Your task to perform on an android device: Open notification settings Image 0: 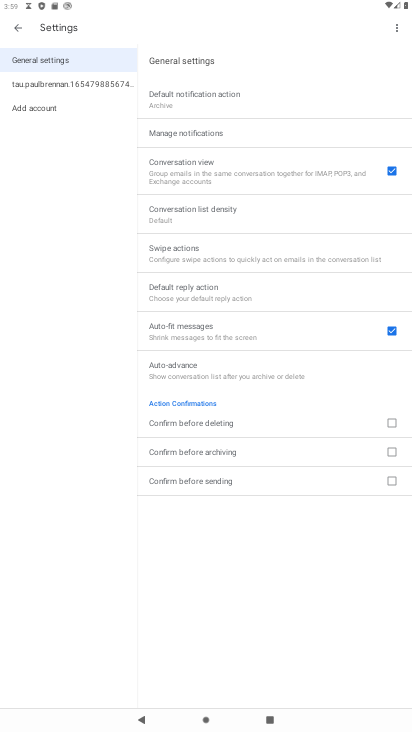
Step 0: press home button
Your task to perform on an android device: Open notification settings Image 1: 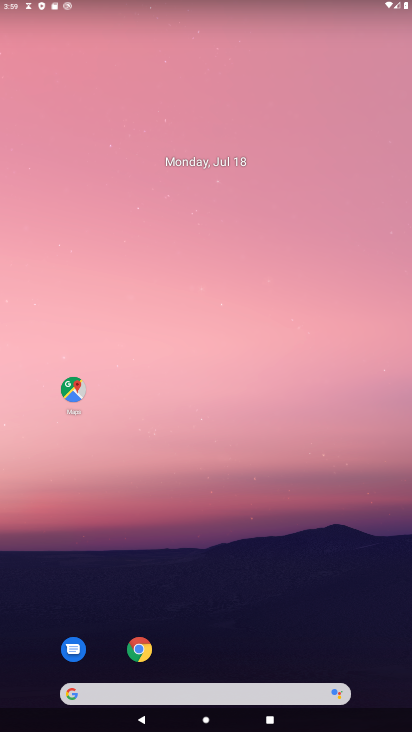
Step 1: drag from (310, 593) to (311, 44)
Your task to perform on an android device: Open notification settings Image 2: 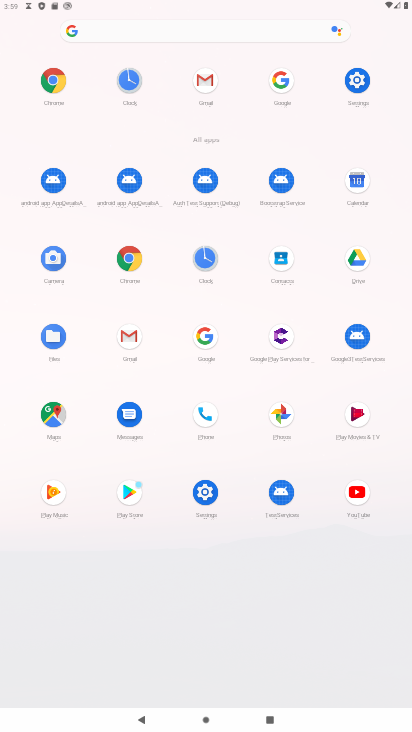
Step 2: click (353, 79)
Your task to perform on an android device: Open notification settings Image 3: 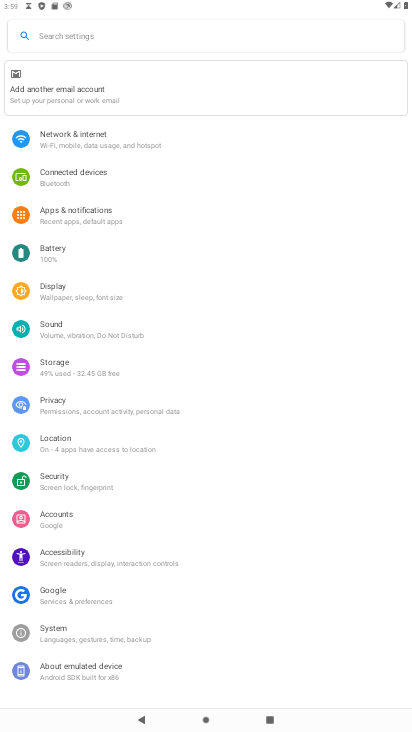
Step 3: click (94, 205)
Your task to perform on an android device: Open notification settings Image 4: 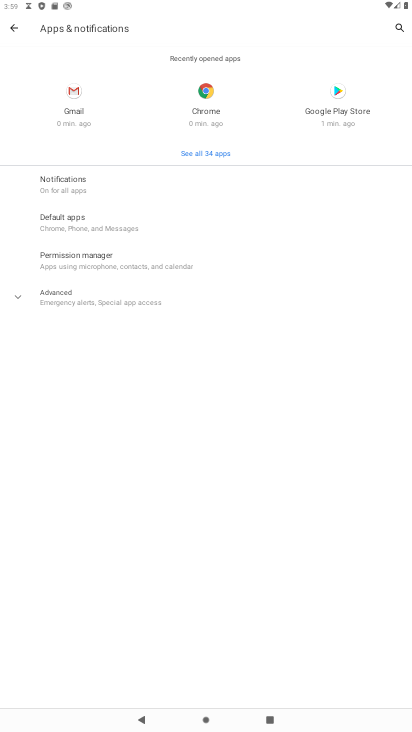
Step 4: click (84, 183)
Your task to perform on an android device: Open notification settings Image 5: 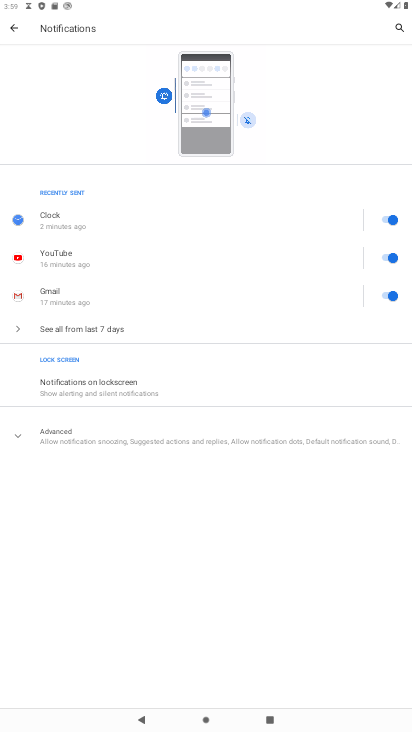
Step 5: task complete